Your task to perform on an android device: empty trash in google photos Image 0: 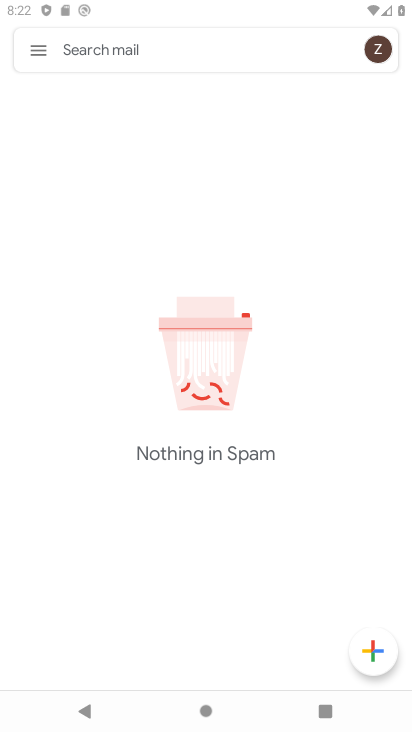
Step 0: press home button
Your task to perform on an android device: empty trash in google photos Image 1: 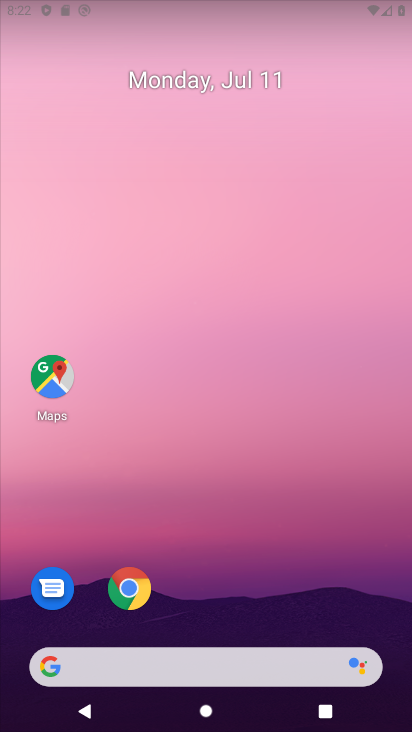
Step 1: drag from (239, 599) to (318, 14)
Your task to perform on an android device: empty trash in google photos Image 2: 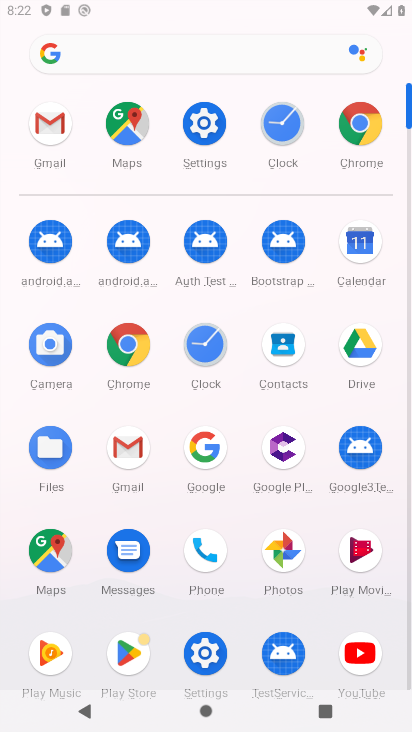
Step 2: click (292, 540)
Your task to perform on an android device: empty trash in google photos Image 3: 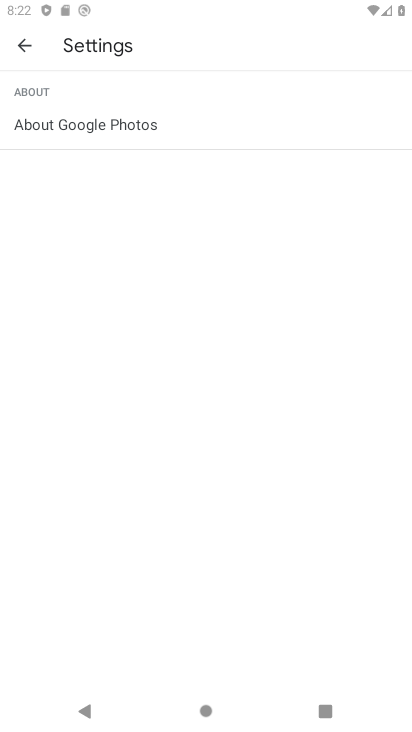
Step 3: click (25, 46)
Your task to perform on an android device: empty trash in google photos Image 4: 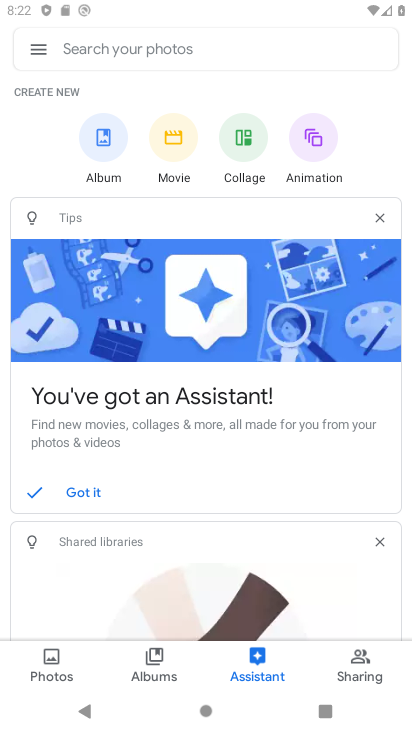
Step 4: click (40, 41)
Your task to perform on an android device: empty trash in google photos Image 5: 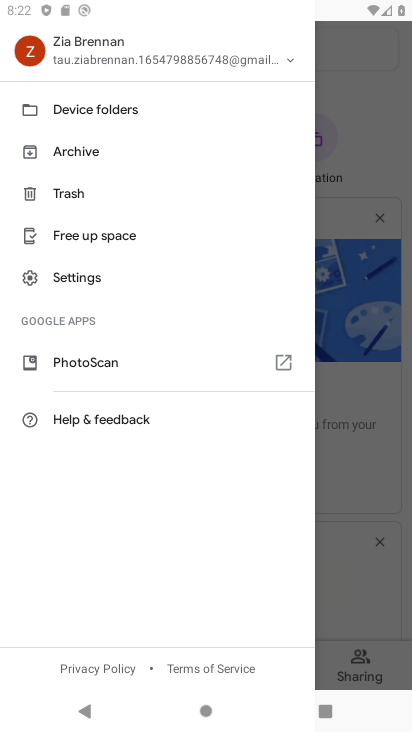
Step 5: click (71, 199)
Your task to perform on an android device: empty trash in google photos Image 6: 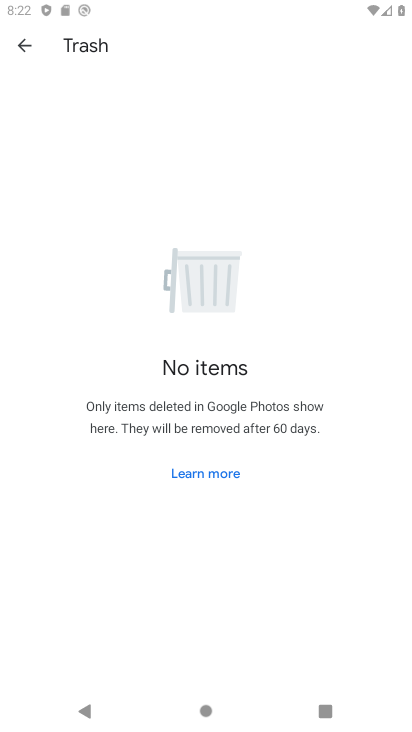
Step 6: task complete